Your task to perform on an android device: turn off sleep mode Image 0: 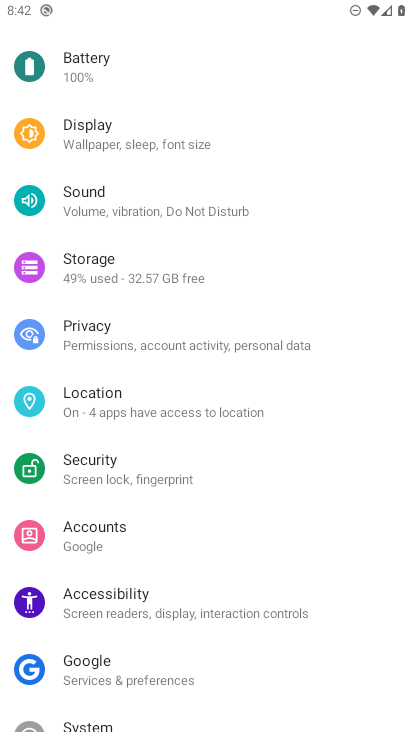
Step 0: click (139, 143)
Your task to perform on an android device: turn off sleep mode Image 1: 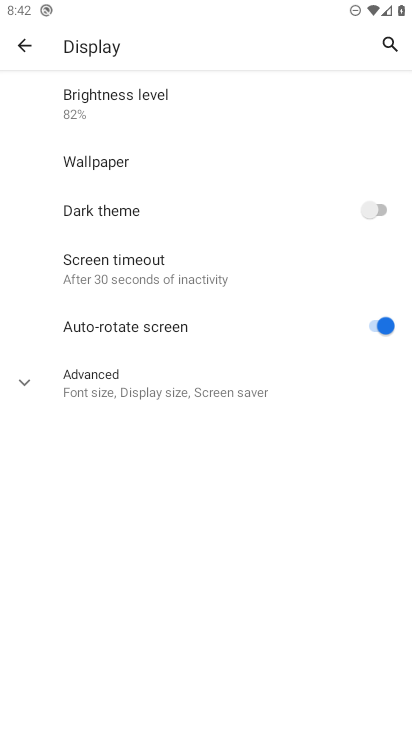
Step 1: click (172, 388)
Your task to perform on an android device: turn off sleep mode Image 2: 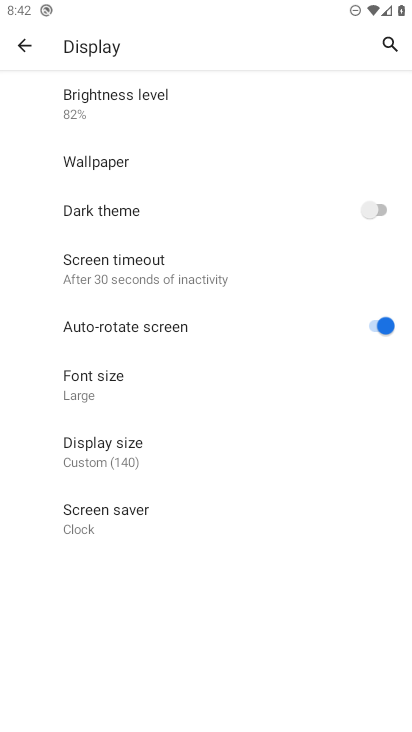
Step 2: click (133, 270)
Your task to perform on an android device: turn off sleep mode Image 3: 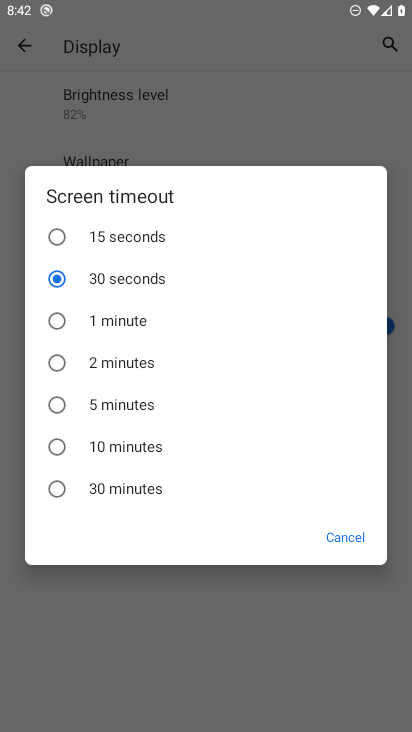
Step 3: click (123, 235)
Your task to perform on an android device: turn off sleep mode Image 4: 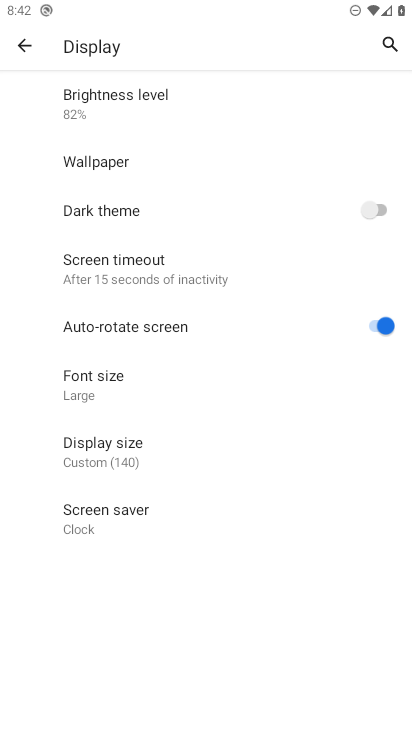
Step 4: task complete